Your task to perform on an android device: see tabs open on other devices in the chrome app Image 0: 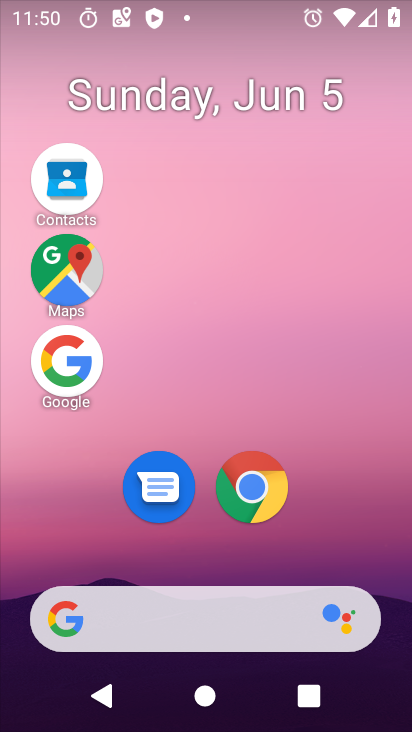
Step 0: drag from (175, 705) to (190, 42)
Your task to perform on an android device: see tabs open on other devices in the chrome app Image 1: 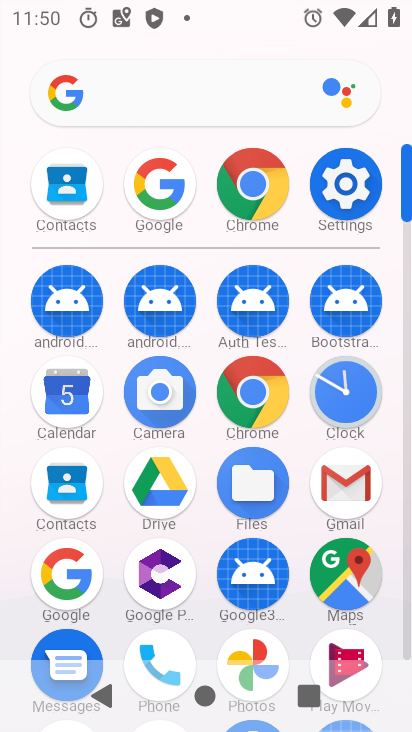
Step 1: click (287, 201)
Your task to perform on an android device: see tabs open on other devices in the chrome app Image 2: 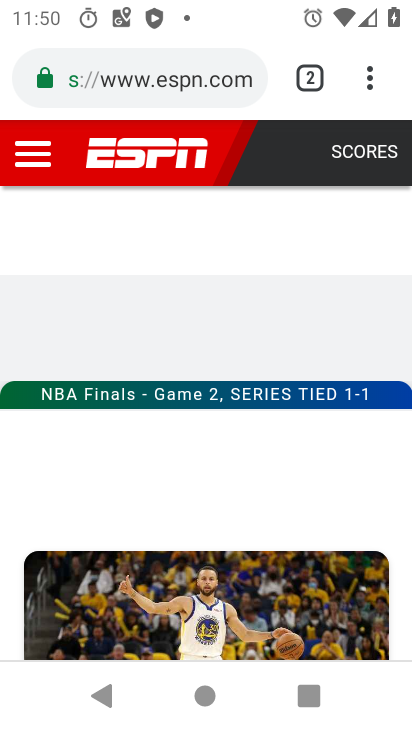
Step 2: task complete